Your task to perform on an android device: turn off wifi Image 0: 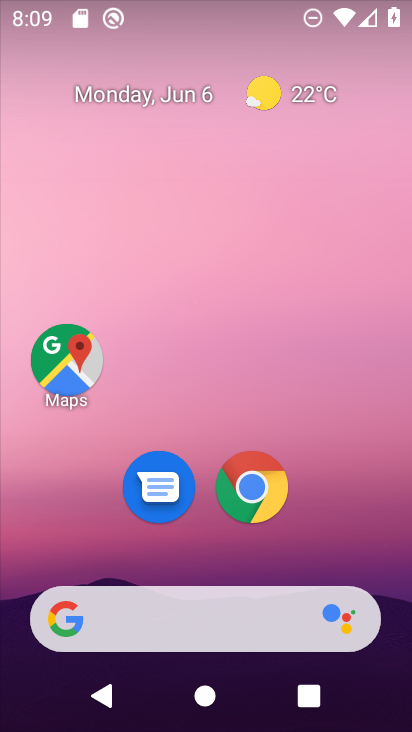
Step 0: drag from (182, 8) to (260, 399)
Your task to perform on an android device: turn off wifi Image 1: 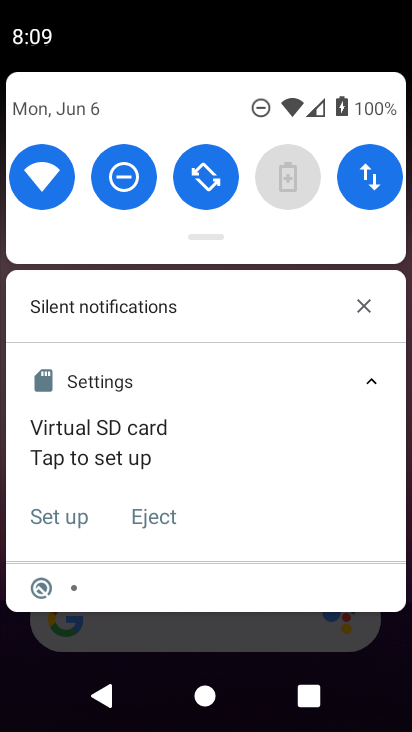
Step 1: click (53, 185)
Your task to perform on an android device: turn off wifi Image 2: 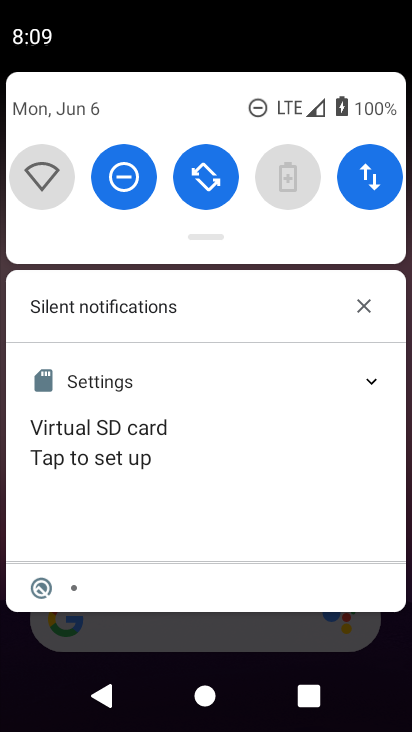
Step 2: task complete